Your task to perform on an android device: What is the capital of the United Kingdom? Image 0: 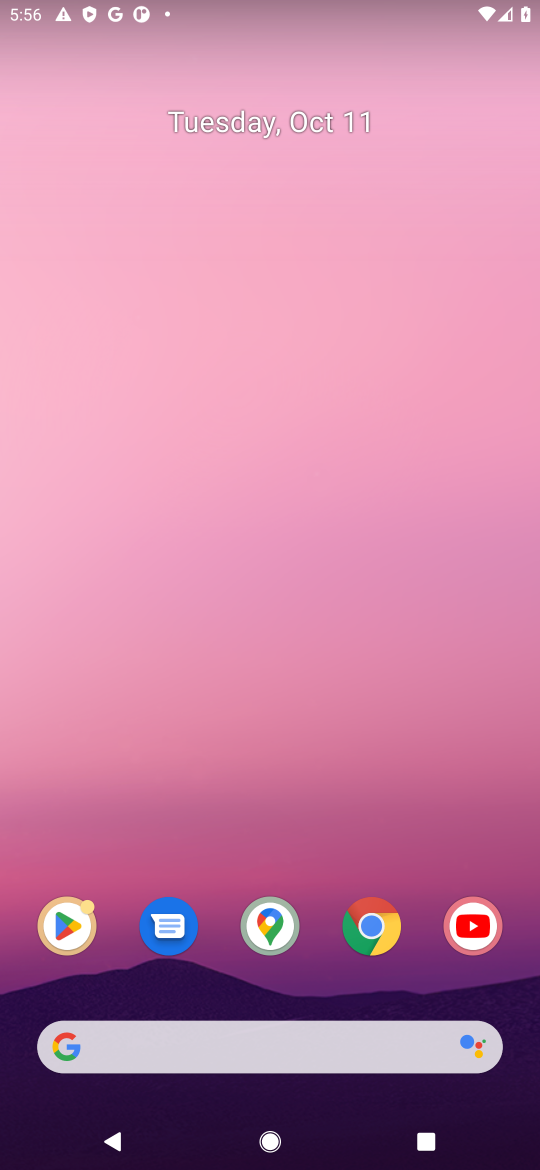
Step 0: click (259, 1042)
Your task to perform on an android device: What is the capital of the United Kingdom? Image 1: 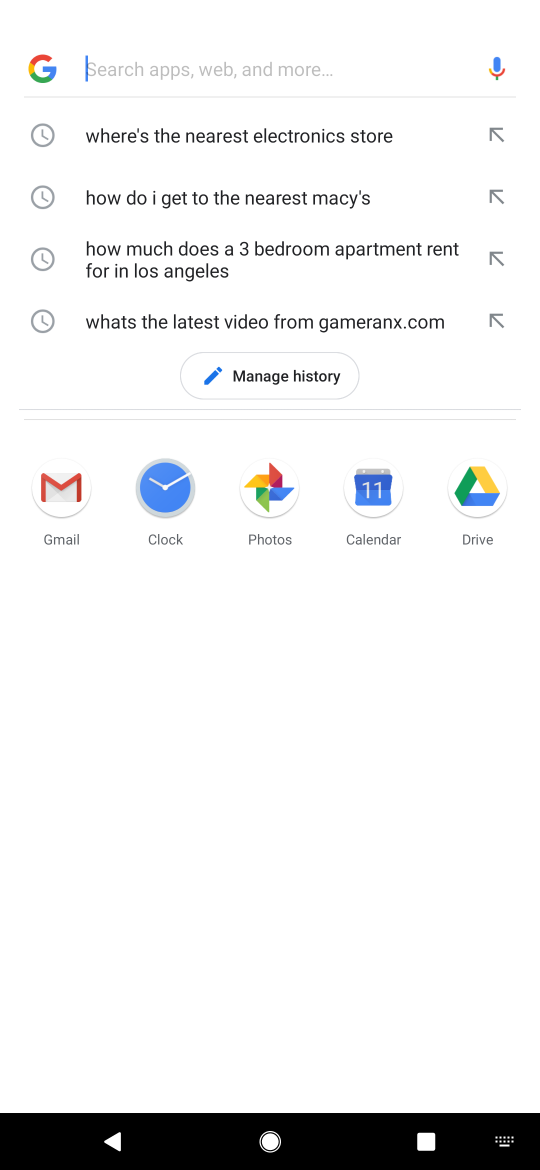
Step 1: type "what is the capital of the united kingdom"
Your task to perform on an android device: What is the capital of the United Kingdom? Image 2: 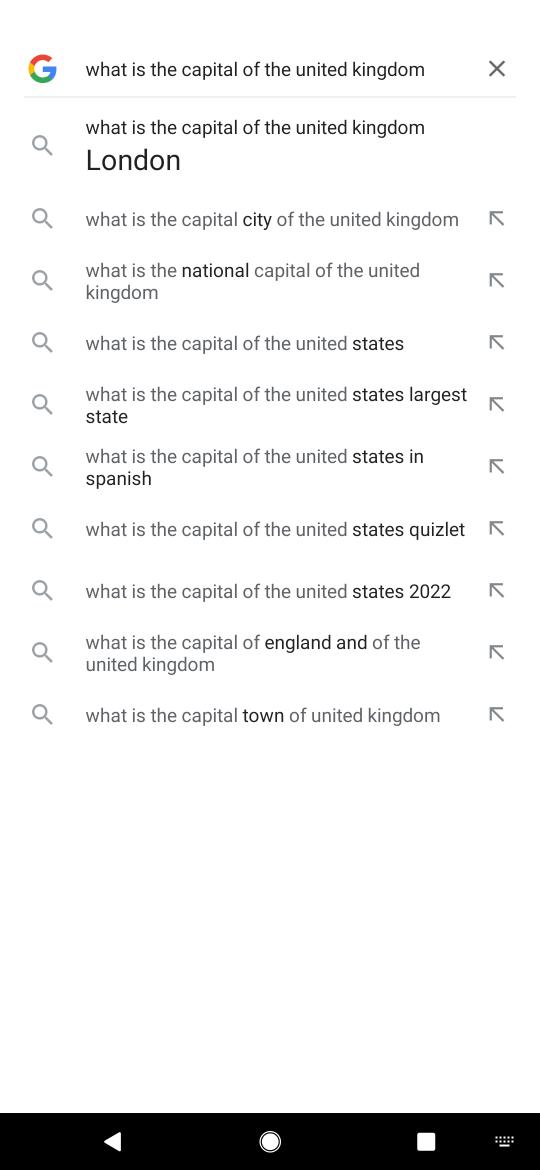
Step 2: click (272, 122)
Your task to perform on an android device: What is the capital of the United Kingdom? Image 3: 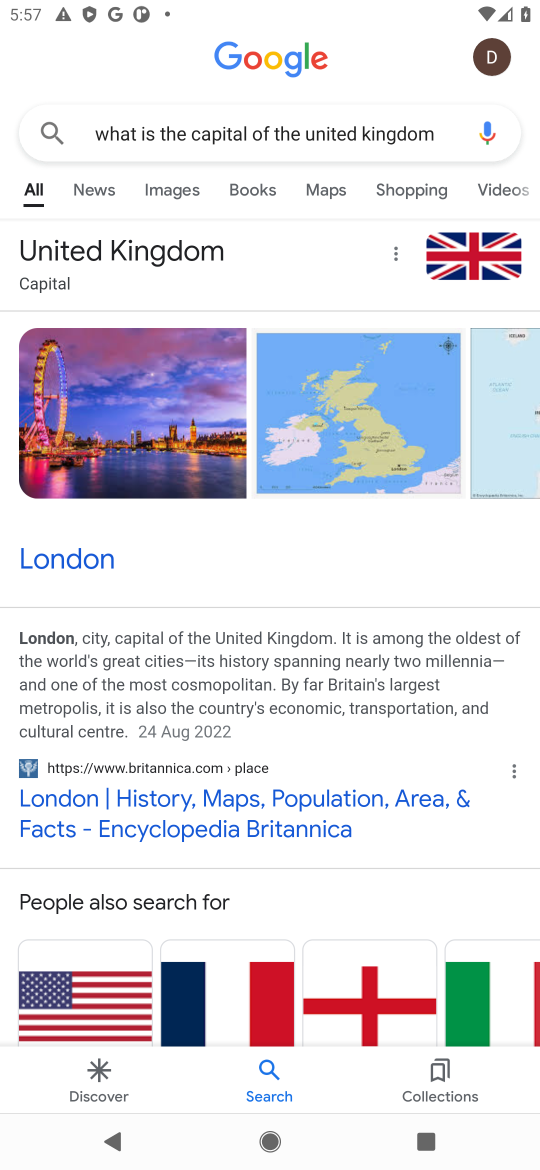
Step 3: task complete